Your task to perform on an android device: Open battery settings Image 0: 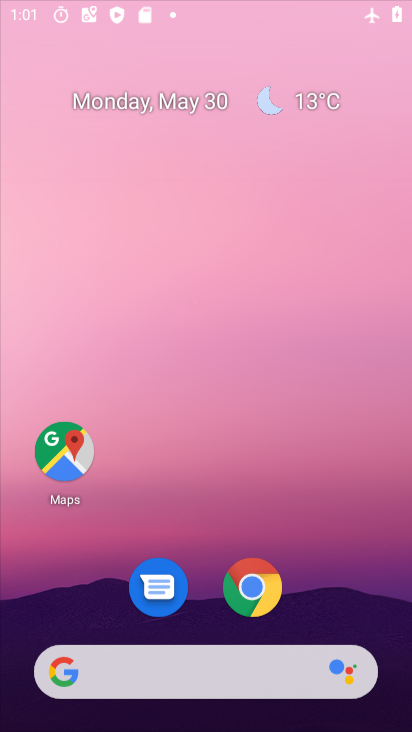
Step 0: click (259, 594)
Your task to perform on an android device: Open battery settings Image 1: 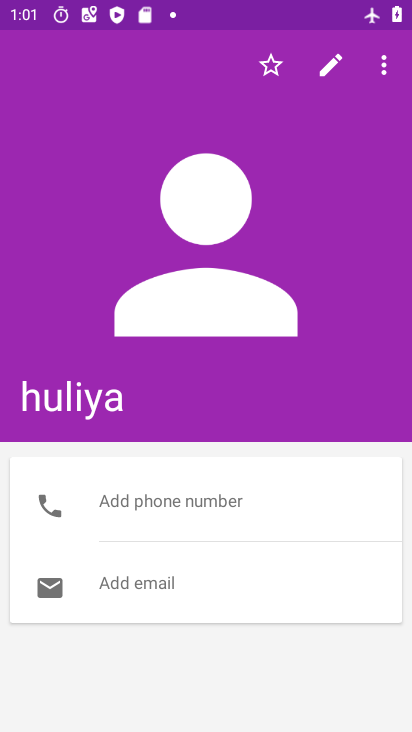
Step 1: press home button
Your task to perform on an android device: Open battery settings Image 2: 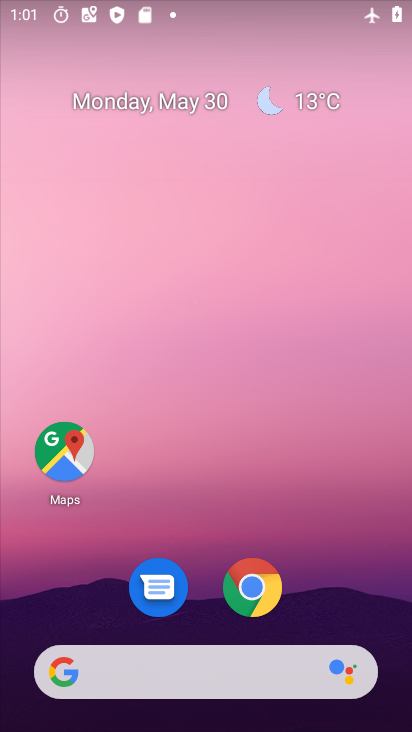
Step 2: click (253, 108)
Your task to perform on an android device: Open battery settings Image 3: 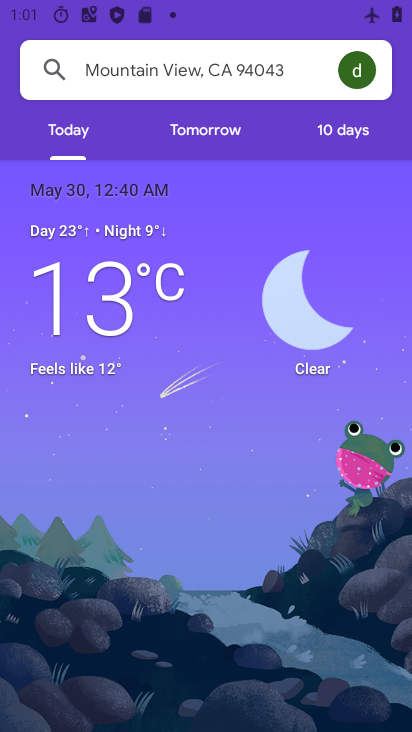
Step 3: press home button
Your task to perform on an android device: Open battery settings Image 4: 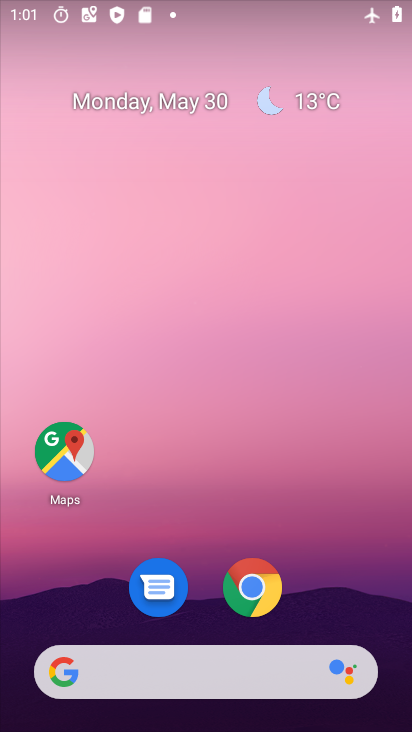
Step 4: drag from (305, 562) to (253, 177)
Your task to perform on an android device: Open battery settings Image 5: 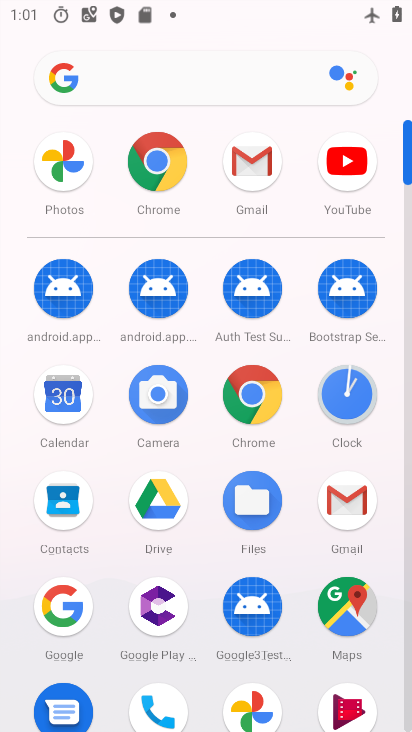
Step 5: drag from (197, 580) to (217, 179)
Your task to perform on an android device: Open battery settings Image 6: 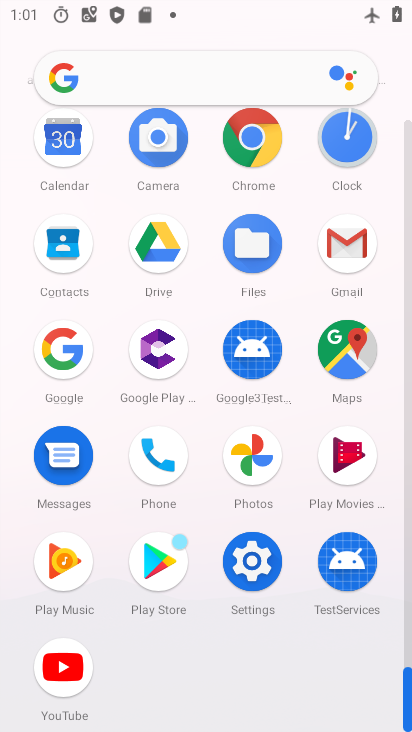
Step 6: click (252, 573)
Your task to perform on an android device: Open battery settings Image 7: 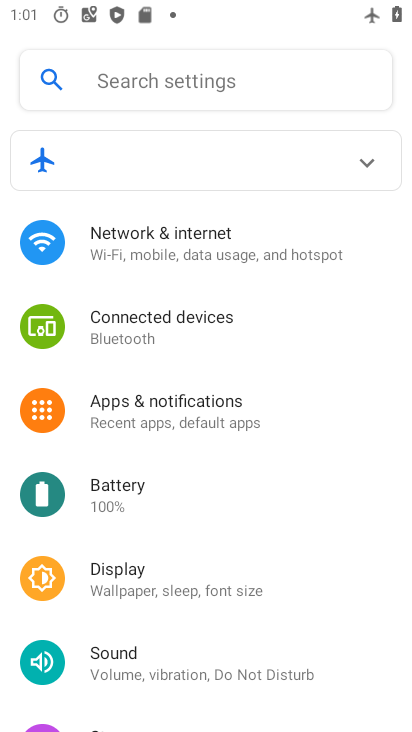
Step 7: drag from (152, 635) to (157, 426)
Your task to perform on an android device: Open battery settings Image 8: 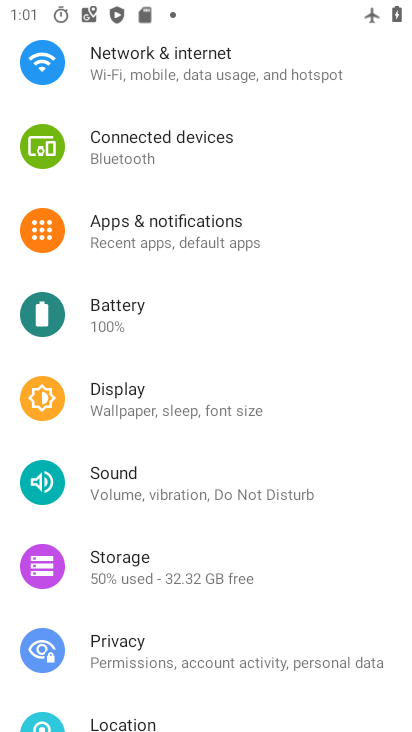
Step 8: click (108, 318)
Your task to perform on an android device: Open battery settings Image 9: 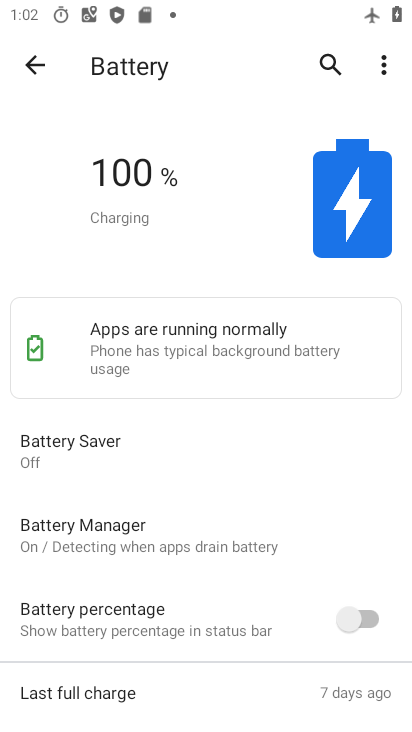
Step 9: task complete